Your task to perform on an android device: Go to location settings Image 0: 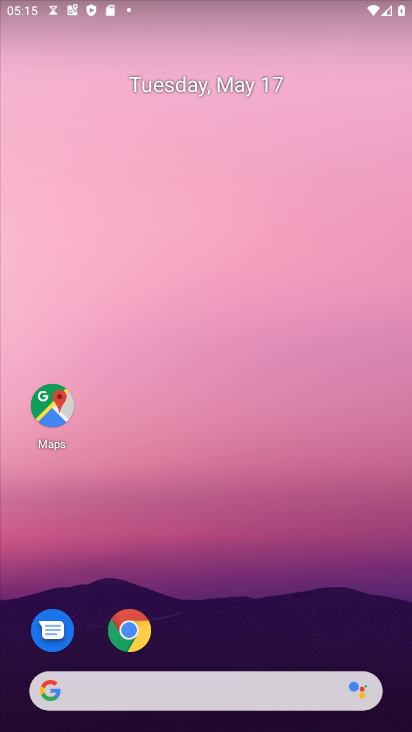
Step 0: click (53, 412)
Your task to perform on an android device: Go to location settings Image 1: 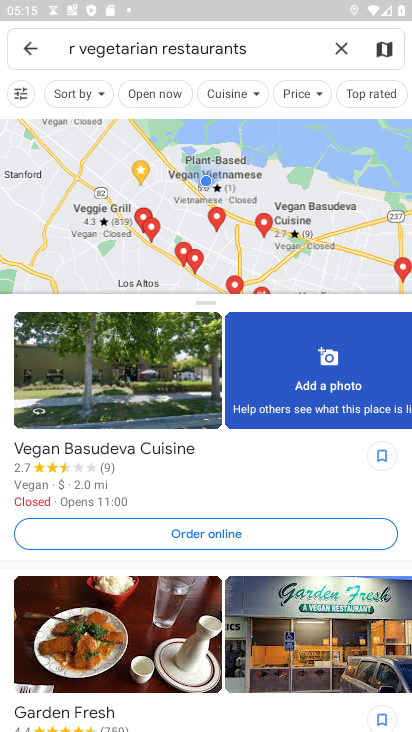
Step 1: press home button
Your task to perform on an android device: Go to location settings Image 2: 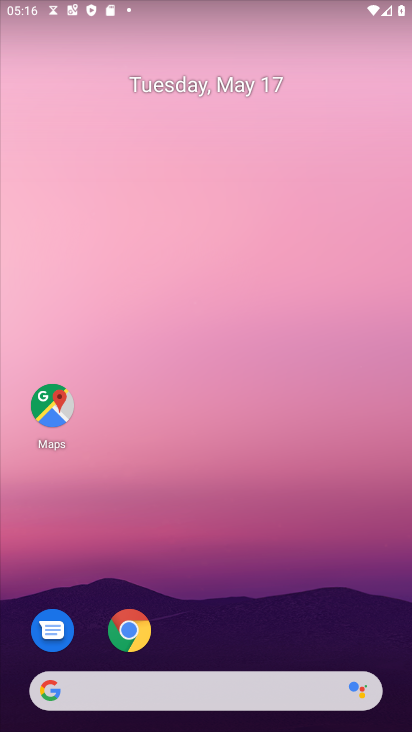
Step 2: click (48, 402)
Your task to perform on an android device: Go to location settings Image 3: 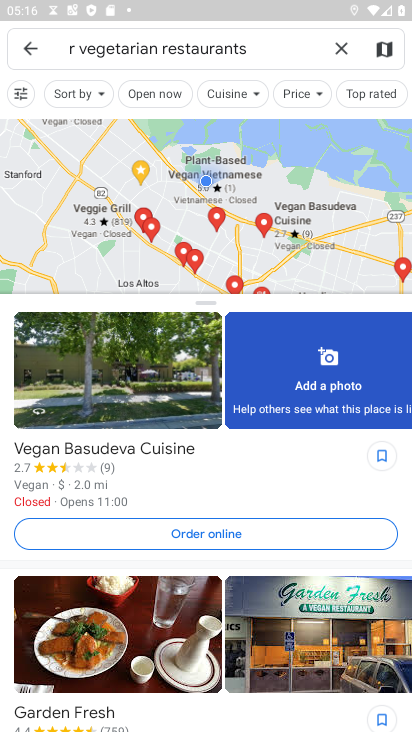
Step 3: press home button
Your task to perform on an android device: Go to location settings Image 4: 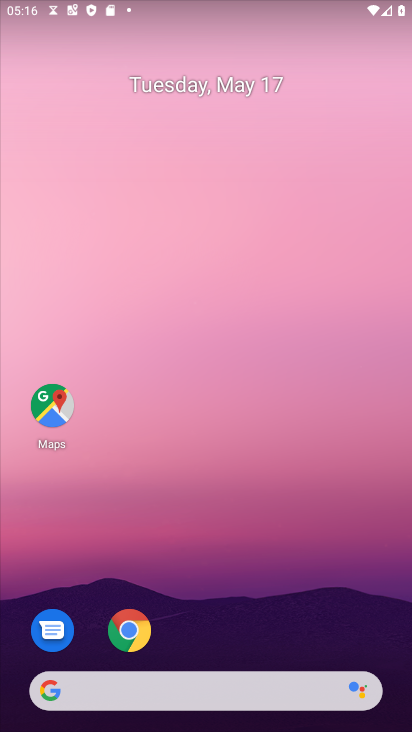
Step 4: drag from (242, 647) to (210, 162)
Your task to perform on an android device: Go to location settings Image 5: 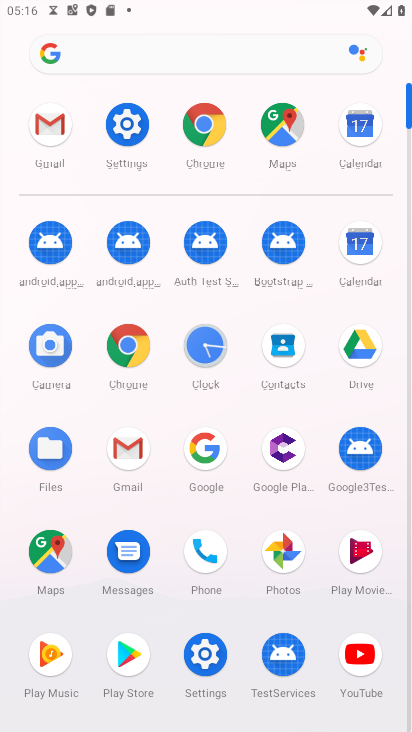
Step 5: click (131, 117)
Your task to perform on an android device: Go to location settings Image 6: 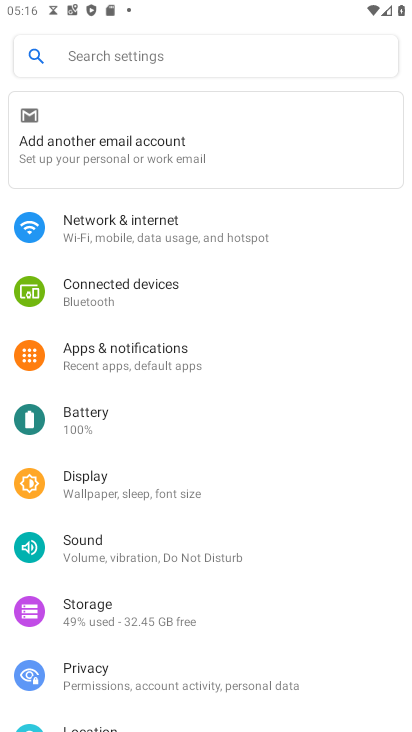
Step 6: drag from (281, 584) to (254, 322)
Your task to perform on an android device: Go to location settings Image 7: 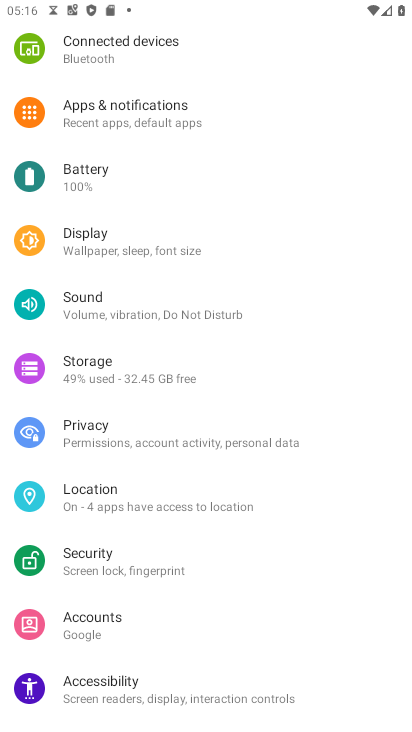
Step 7: click (92, 501)
Your task to perform on an android device: Go to location settings Image 8: 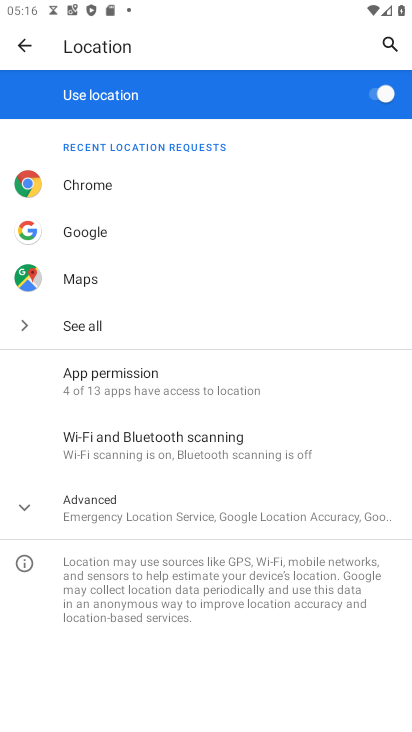
Step 8: task complete